Your task to perform on an android device: Go to sound settings Image 0: 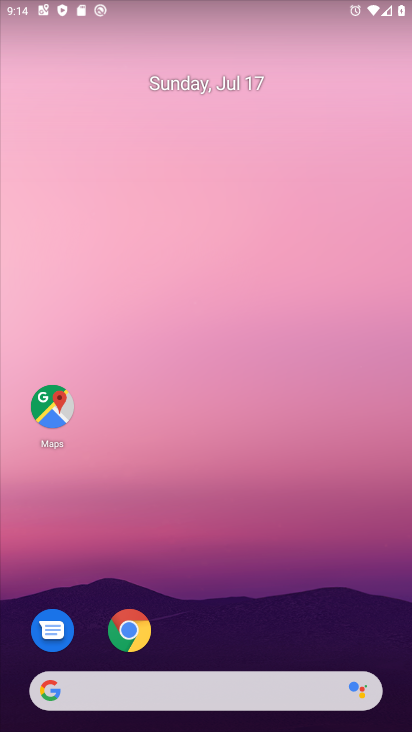
Step 0: drag from (330, 617) to (335, 116)
Your task to perform on an android device: Go to sound settings Image 1: 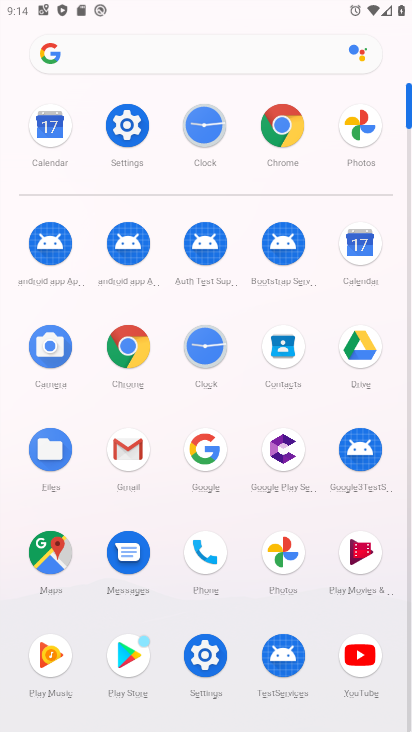
Step 1: click (126, 125)
Your task to perform on an android device: Go to sound settings Image 2: 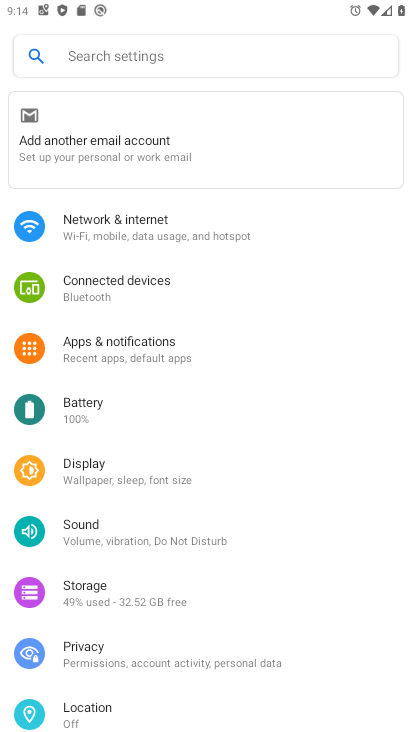
Step 2: drag from (330, 489) to (334, 395)
Your task to perform on an android device: Go to sound settings Image 3: 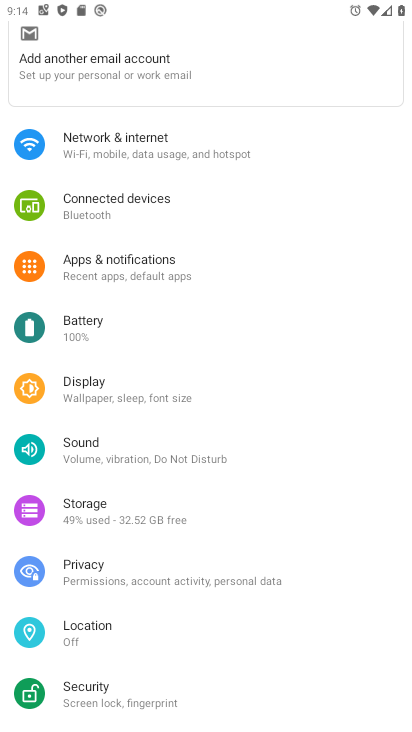
Step 3: drag from (331, 524) to (342, 420)
Your task to perform on an android device: Go to sound settings Image 4: 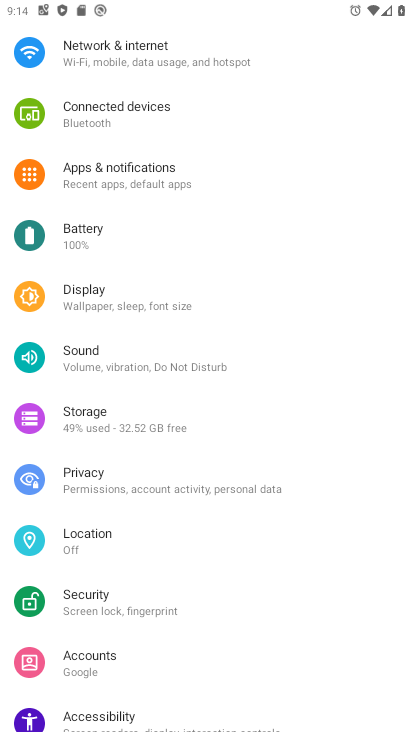
Step 4: drag from (339, 521) to (340, 434)
Your task to perform on an android device: Go to sound settings Image 5: 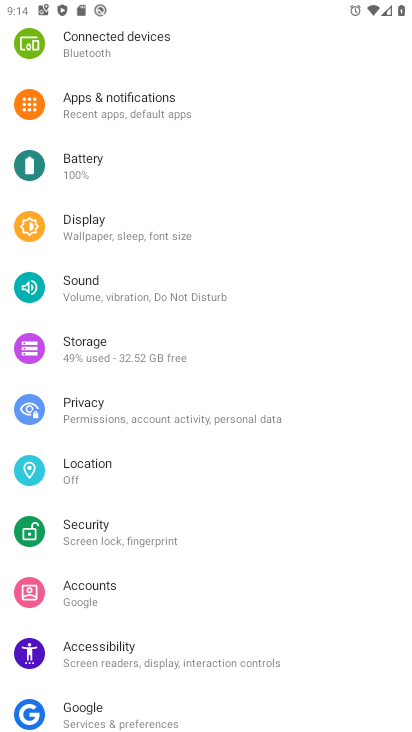
Step 5: drag from (329, 548) to (333, 455)
Your task to perform on an android device: Go to sound settings Image 6: 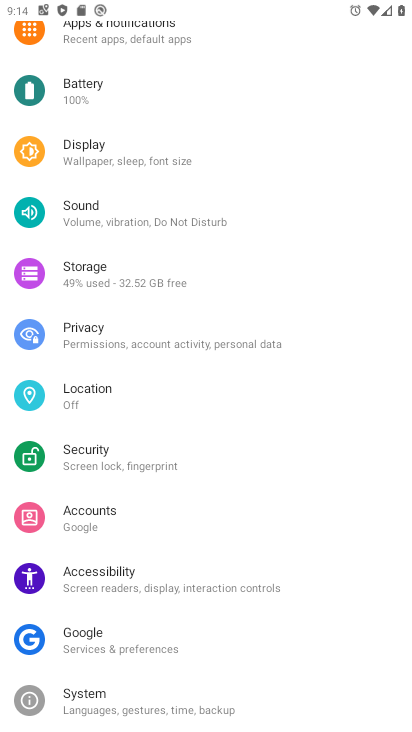
Step 6: drag from (325, 603) to (335, 468)
Your task to perform on an android device: Go to sound settings Image 7: 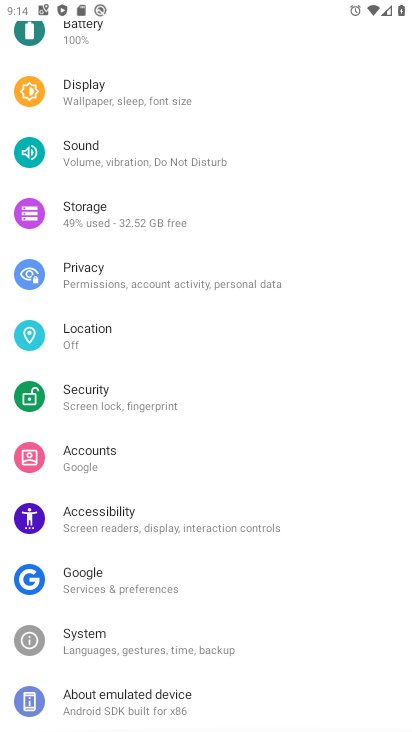
Step 7: drag from (336, 402) to (336, 486)
Your task to perform on an android device: Go to sound settings Image 8: 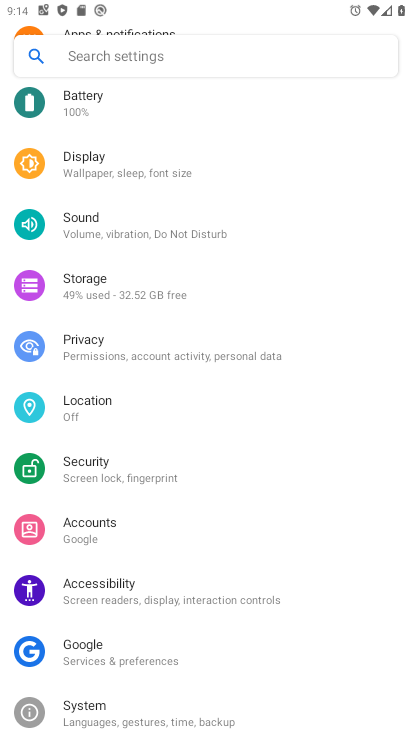
Step 8: drag from (341, 401) to (343, 478)
Your task to perform on an android device: Go to sound settings Image 9: 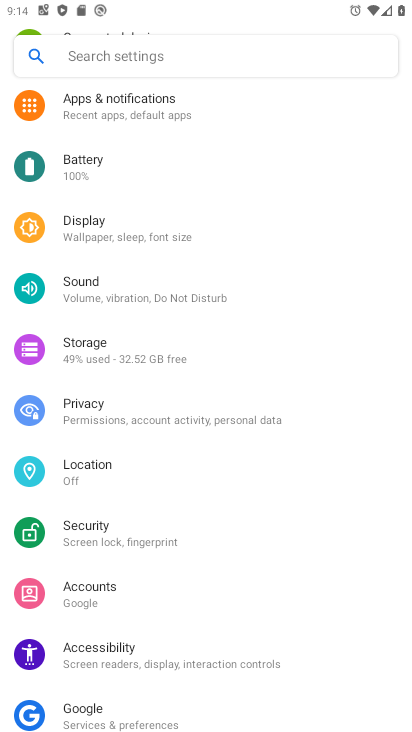
Step 9: drag from (343, 398) to (345, 471)
Your task to perform on an android device: Go to sound settings Image 10: 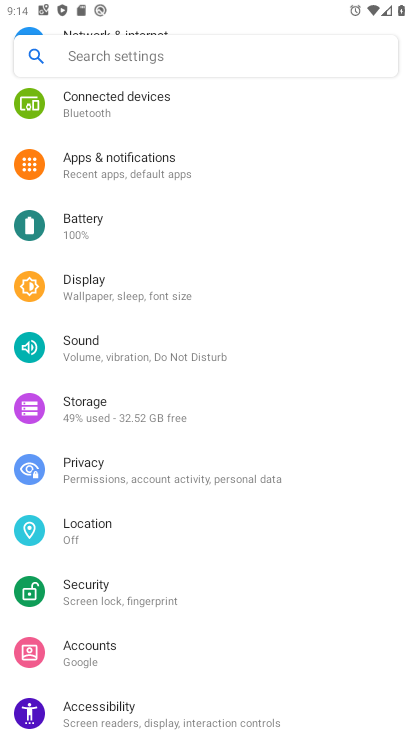
Step 10: drag from (337, 387) to (338, 477)
Your task to perform on an android device: Go to sound settings Image 11: 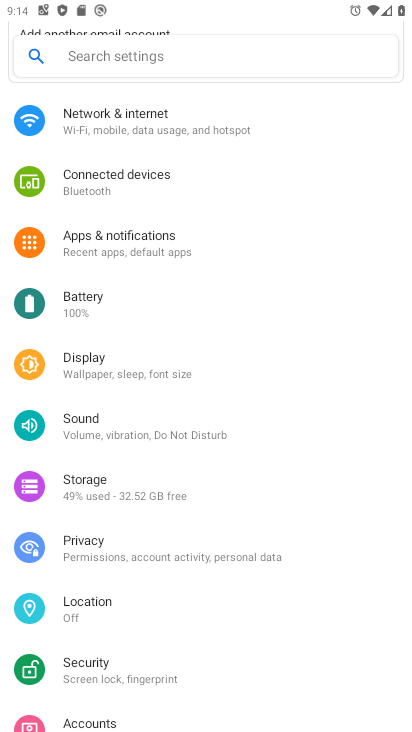
Step 11: drag from (334, 337) to (330, 423)
Your task to perform on an android device: Go to sound settings Image 12: 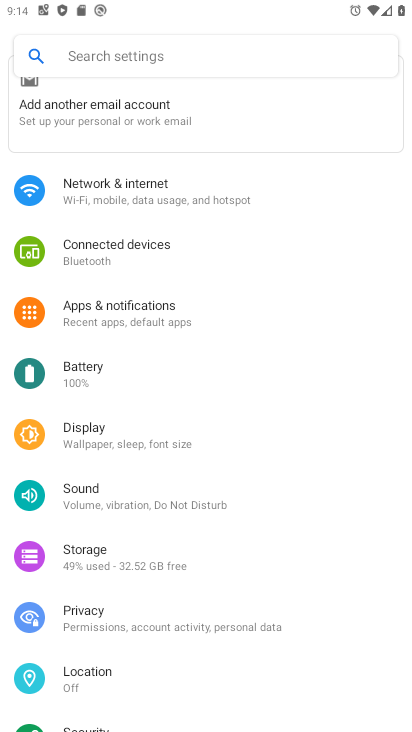
Step 12: drag from (330, 334) to (328, 409)
Your task to perform on an android device: Go to sound settings Image 13: 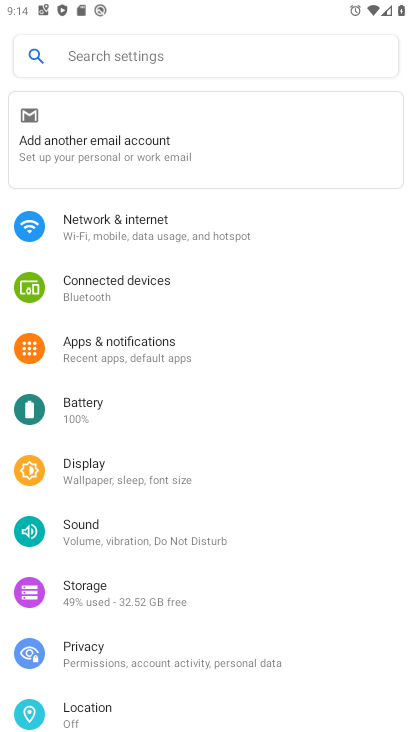
Step 13: click (178, 533)
Your task to perform on an android device: Go to sound settings Image 14: 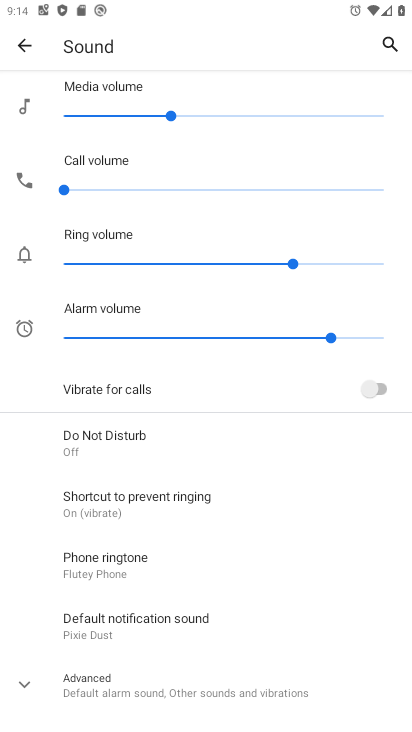
Step 14: task complete